Your task to perform on an android device: toggle notification dots Image 0: 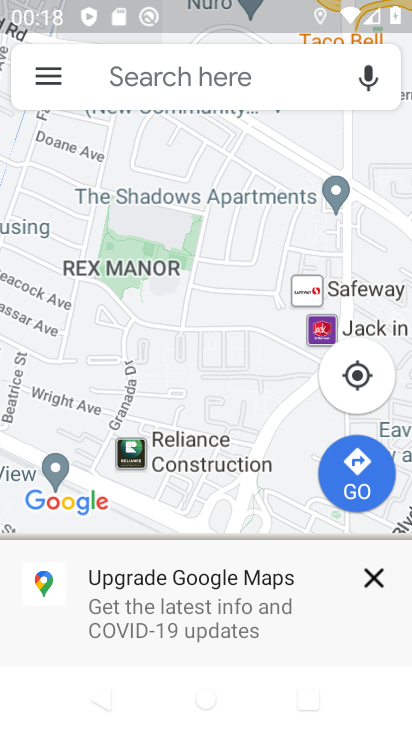
Step 0: press home button
Your task to perform on an android device: toggle notification dots Image 1: 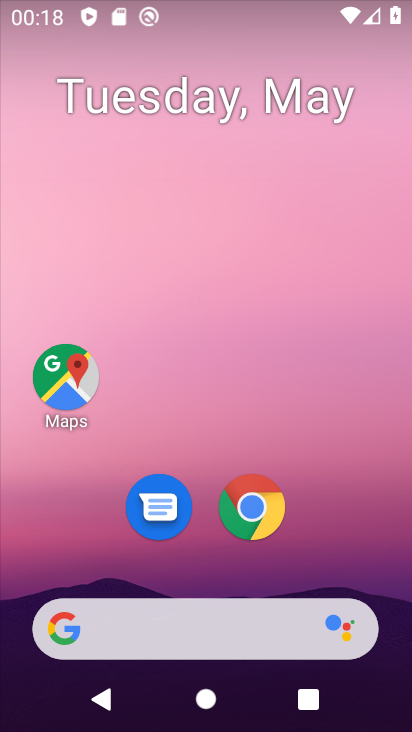
Step 1: drag from (233, 600) to (289, 247)
Your task to perform on an android device: toggle notification dots Image 2: 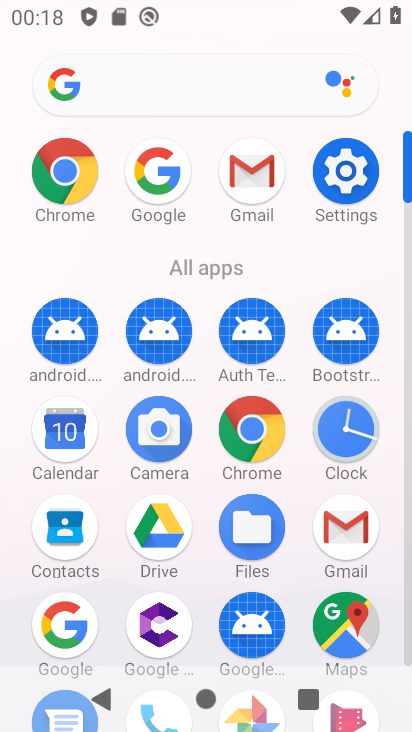
Step 2: click (348, 170)
Your task to perform on an android device: toggle notification dots Image 3: 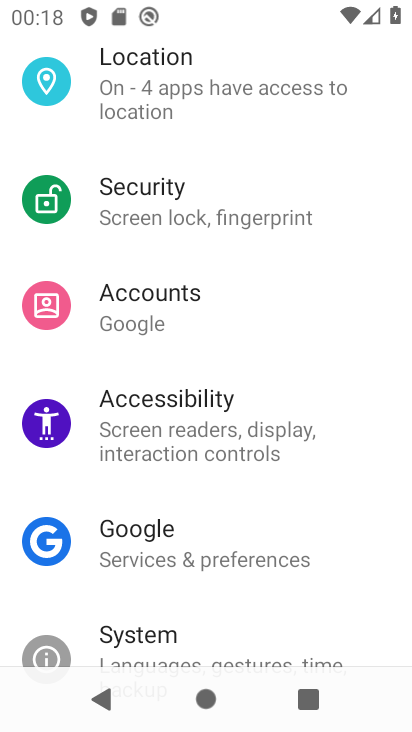
Step 3: drag from (210, 176) to (219, 546)
Your task to perform on an android device: toggle notification dots Image 4: 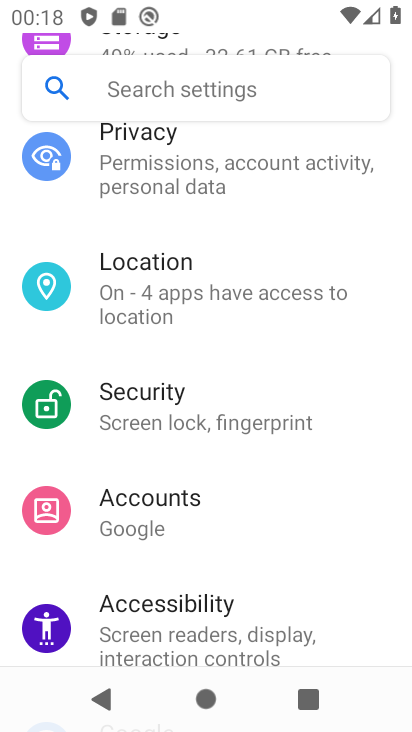
Step 4: drag from (262, 186) to (265, 575)
Your task to perform on an android device: toggle notification dots Image 5: 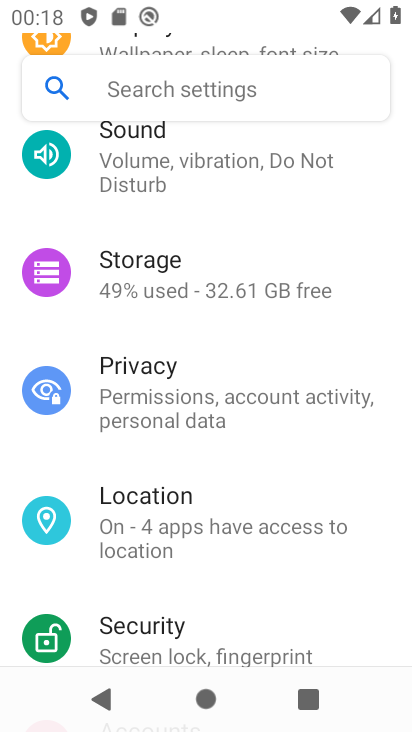
Step 5: drag from (336, 197) to (336, 551)
Your task to perform on an android device: toggle notification dots Image 6: 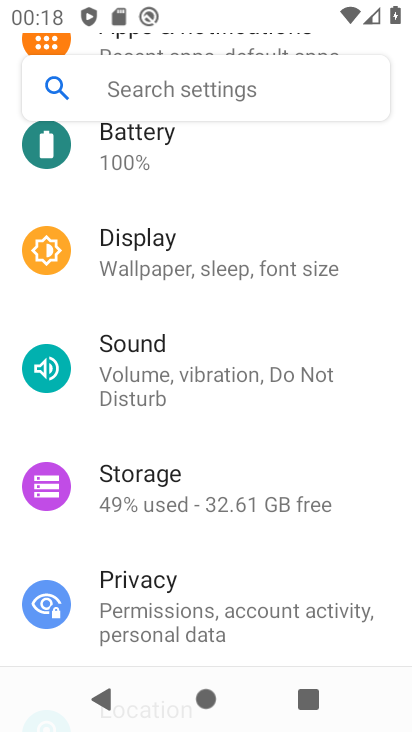
Step 6: drag from (319, 139) to (332, 611)
Your task to perform on an android device: toggle notification dots Image 7: 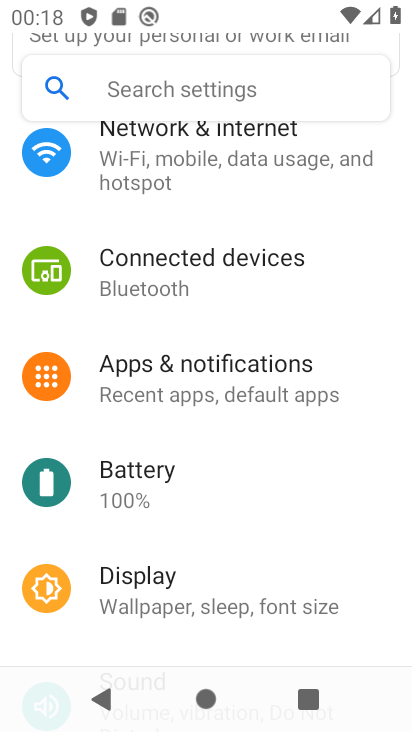
Step 7: click (235, 372)
Your task to perform on an android device: toggle notification dots Image 8: 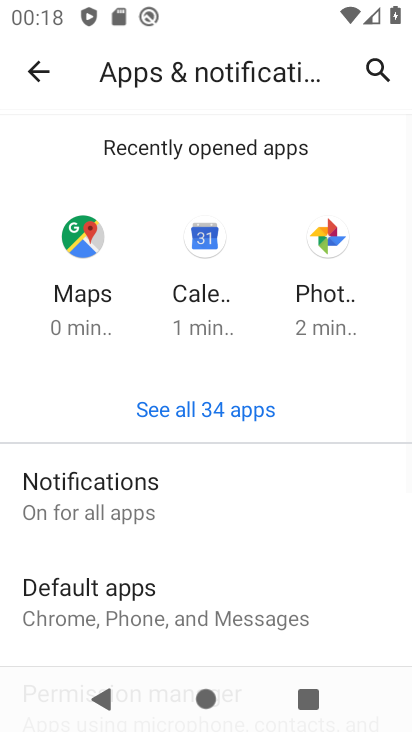
Step 8: click (98, 508)
Your task to perform on an android device: toggle notification dots Image 9: 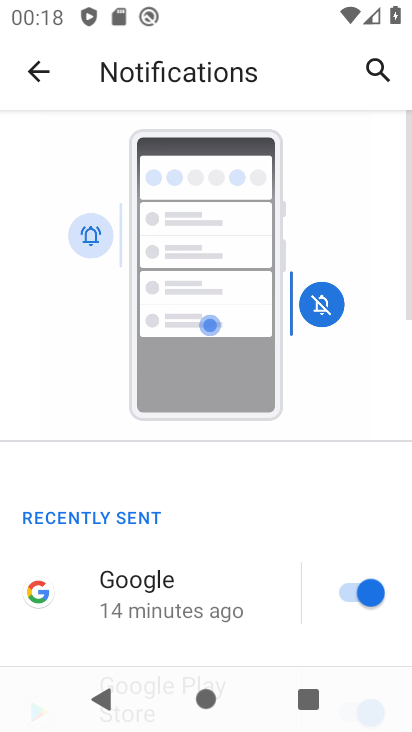
Step 9: drag from (185, 627) to (282, 205)
Your task to perform on an android device: toggle notification dots Image 10: 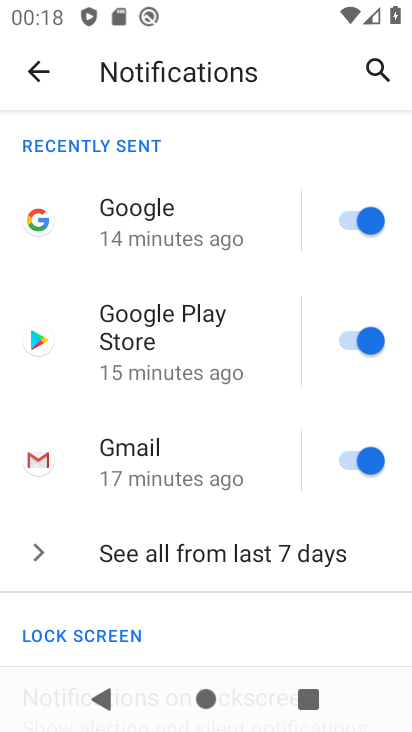
Step 10: drag from (166, 609) to (247, 252)
Your task to perform on an android device: toggle notification dots Image 11: 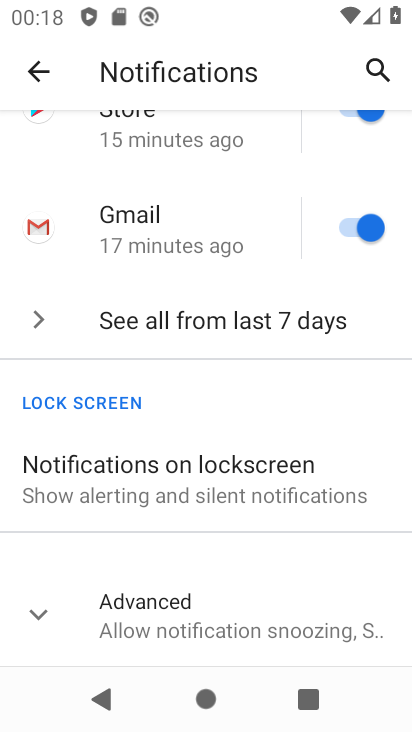
Step 11: click (185, 605)
Your task to perform on an android device: toggle notification dots Image 12: 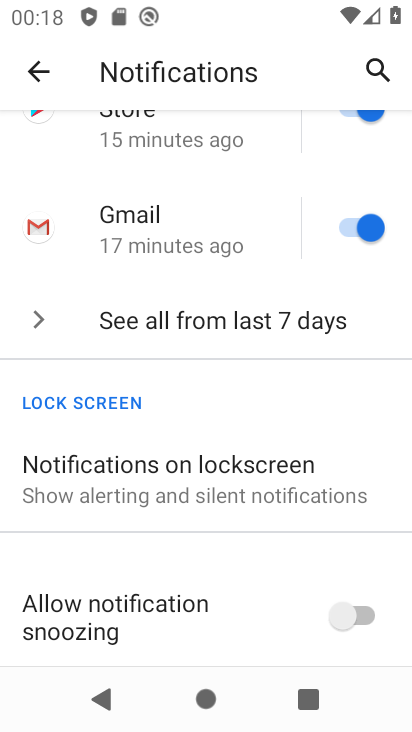
Step 12: drag from (181, 623) to (243, 311)
Your task to perform on an android device: toggle notification dots Image 13: 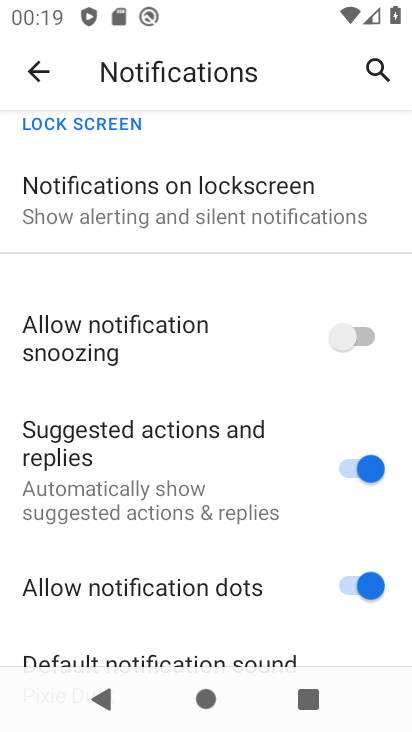
Step 13: drag from (226, 607) to (275, 386)
Your task to perform on an android device: toggle notification dots Image 14: 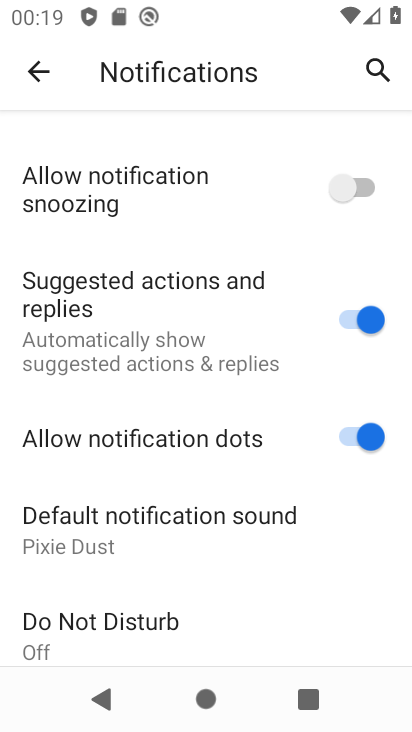
Step 14: click (348, 434)
Your task to perform on an android device: toggle notification dots Image 15: 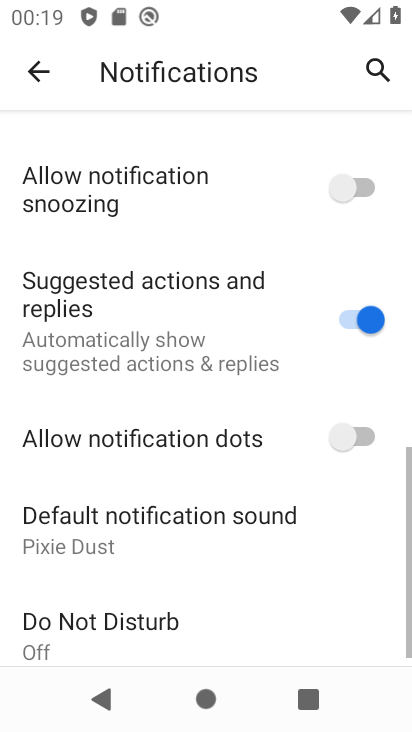
Step 15: task complete